Your task to perform on an android device: show emergency info Image 0: 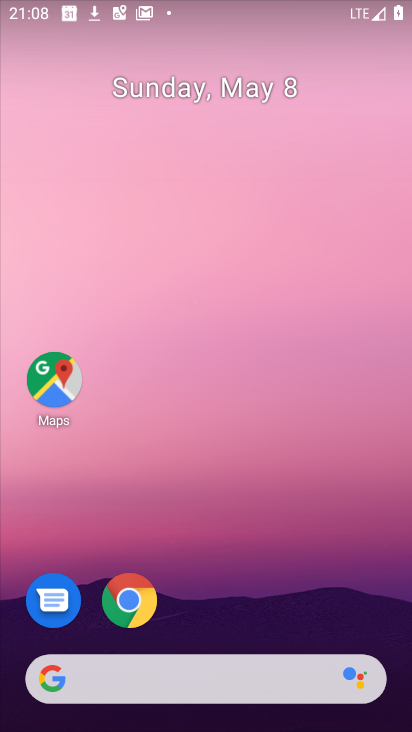
Step 0: drag from (280, 707) to (224, 320)
Your task to perform on an android device: show emergency info Image 1: 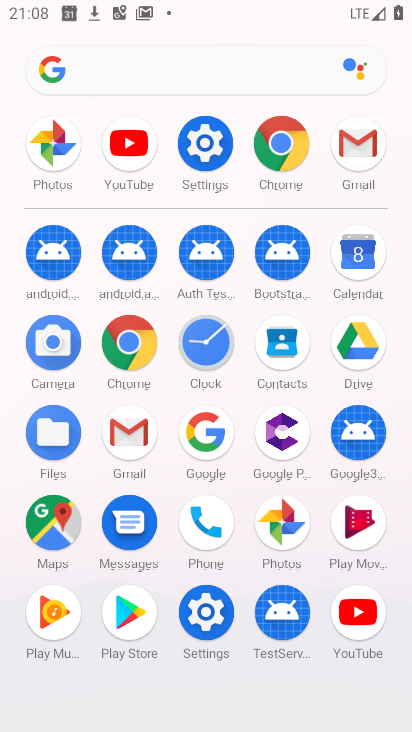
Step 1: click (209, 162)
Your task to perform on an android device: show emergency info Image 2: 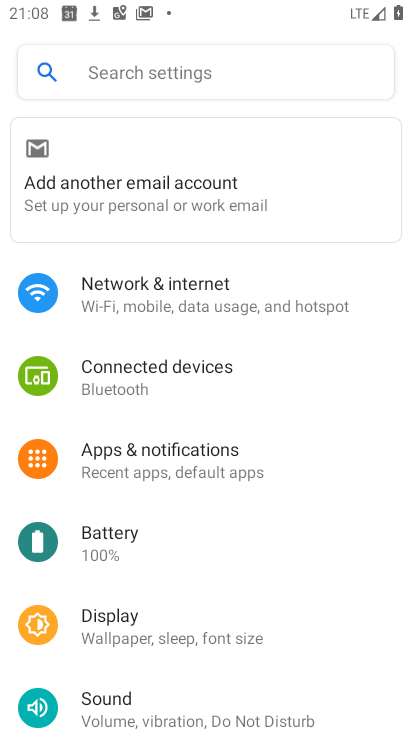
Step 2: click (119, 80)
Your task to perform on an android device: show emergency info Image 3: 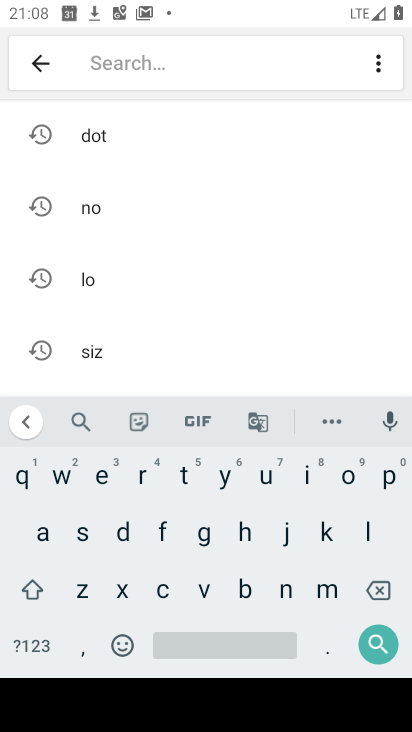
Step 3: click (94, 480)
Your task to perform on an android device: show emergency info Image 4: 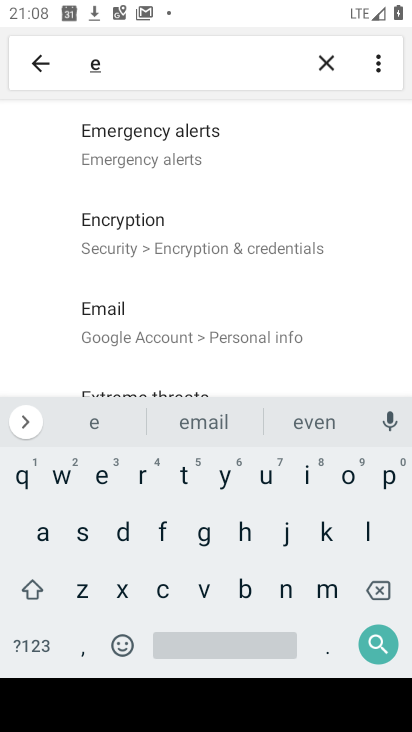
Step 4: click (323, 588)
Your task to perform on an android device: show emergency info Image 5: 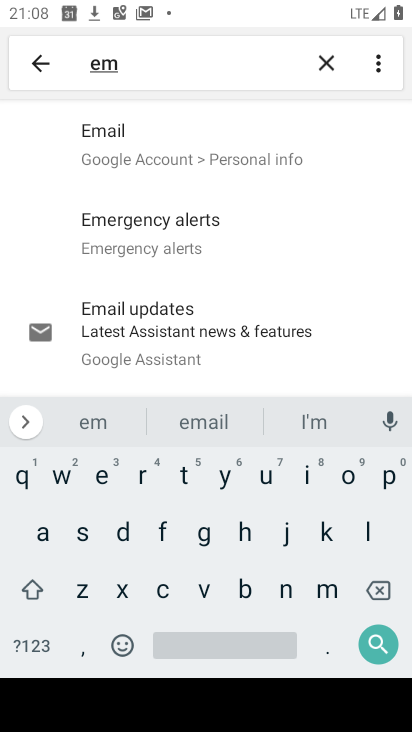
Step 5: click (96, 479)
Your task to perform on an android device: show emergency info Image 6: 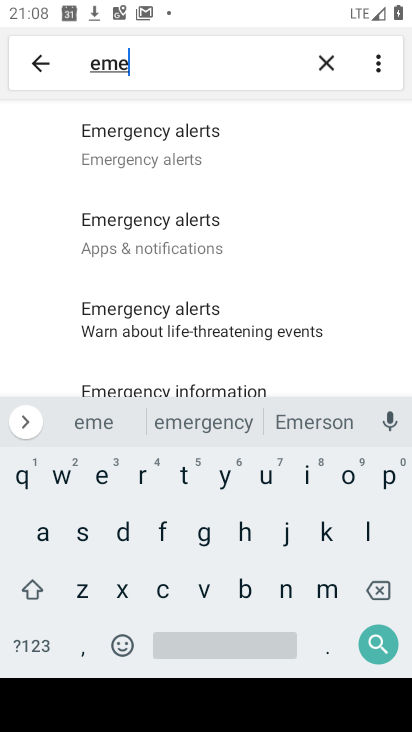
Step 6: click (200, 428)
Your task to perform on an android device: show emergency info Image 7: 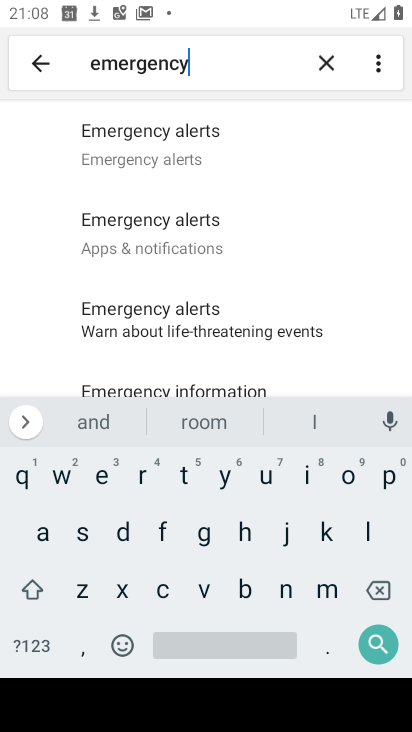
Step 7: click (306, 475)
Your task to perform on an android device: show emergency info Image 8: 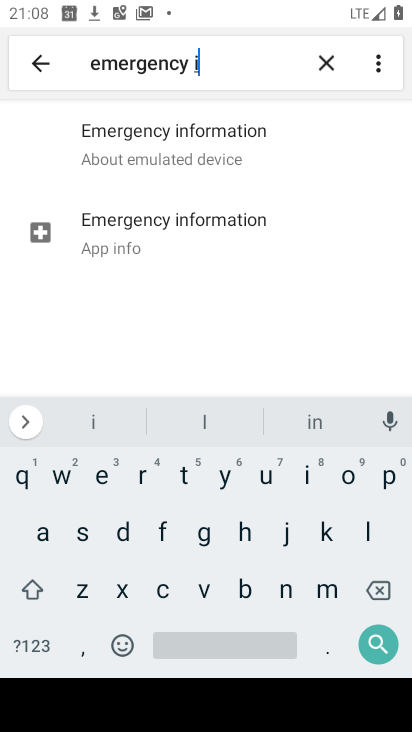
Step 8: click (279, 591)
Your task to perform on an android device: show emergency info Image 9: 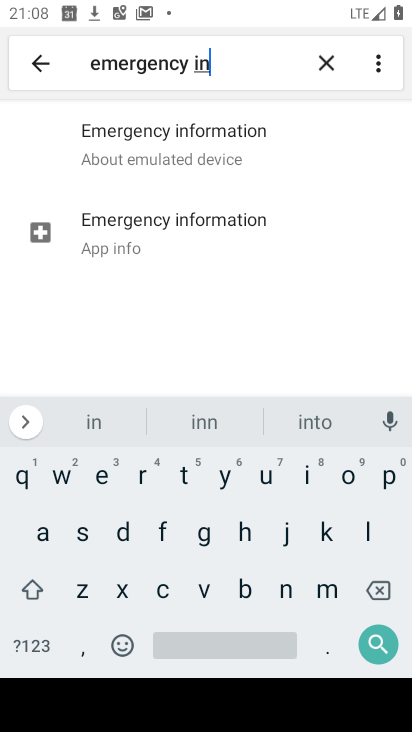
Step 9: click (201, 143)
Your task to perform on an android device: show emergency info Image 10: 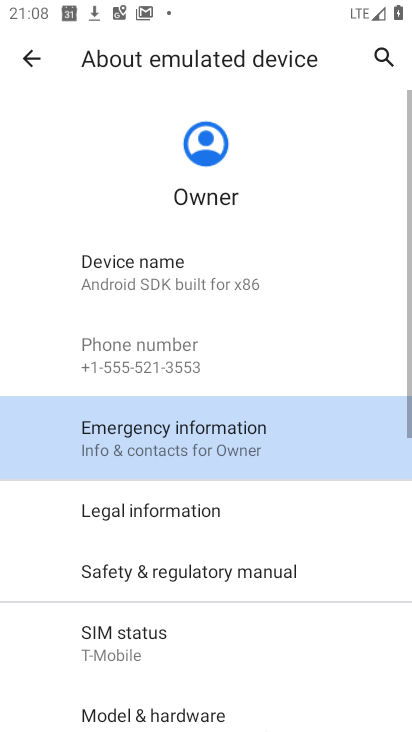
Step 10: click (176, 401)
Your task to perform on an android device: show emergency info Image 11: 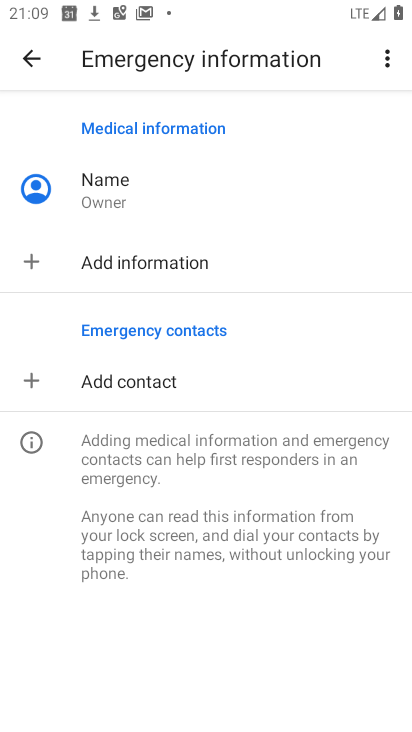
Step 11: task complete